Your task to perform on an android device: Open settings Image 0: 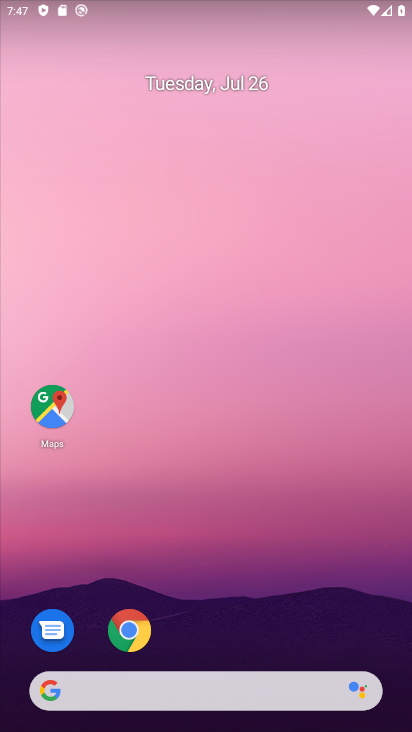
Step 0: drag from (257, 641) to (209, 27)
Your task to perform on an android device: Open settings Image 1: 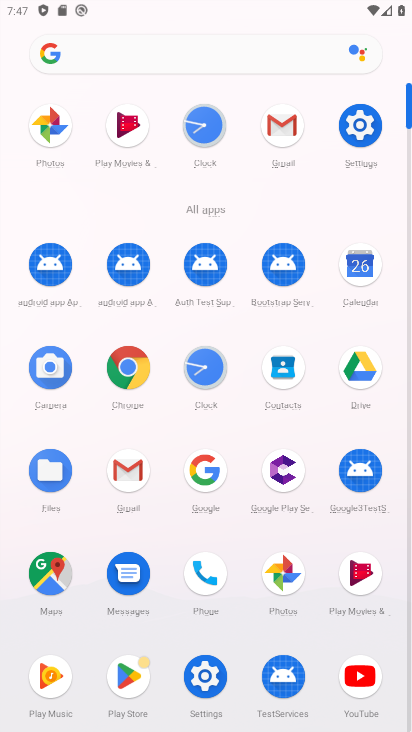
Step 1: click (209, 27)
Your task to perform on an android device: Open settings Image 2: 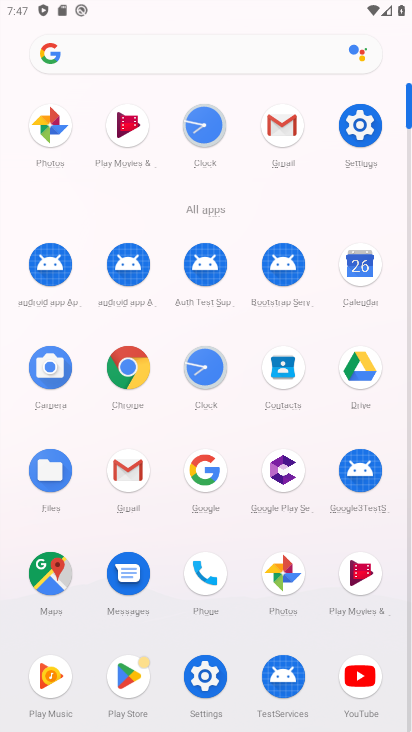
Step 2: click (201, 693)
Your task to perform on an android device: Open settings Image 3: 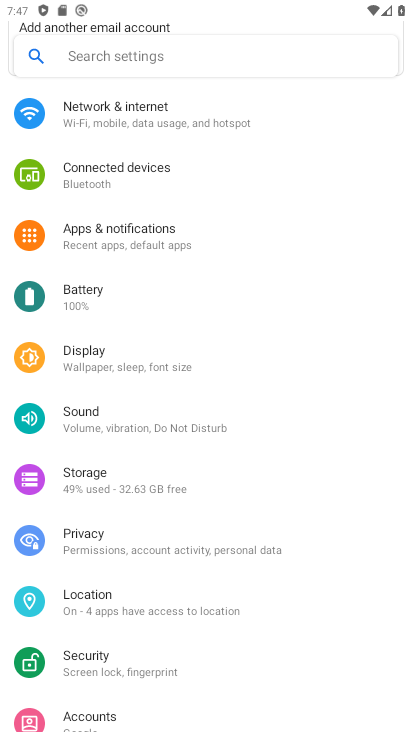
Step 3: task complete